Your task to perform on an android device: Go to wifi settings Image 0: 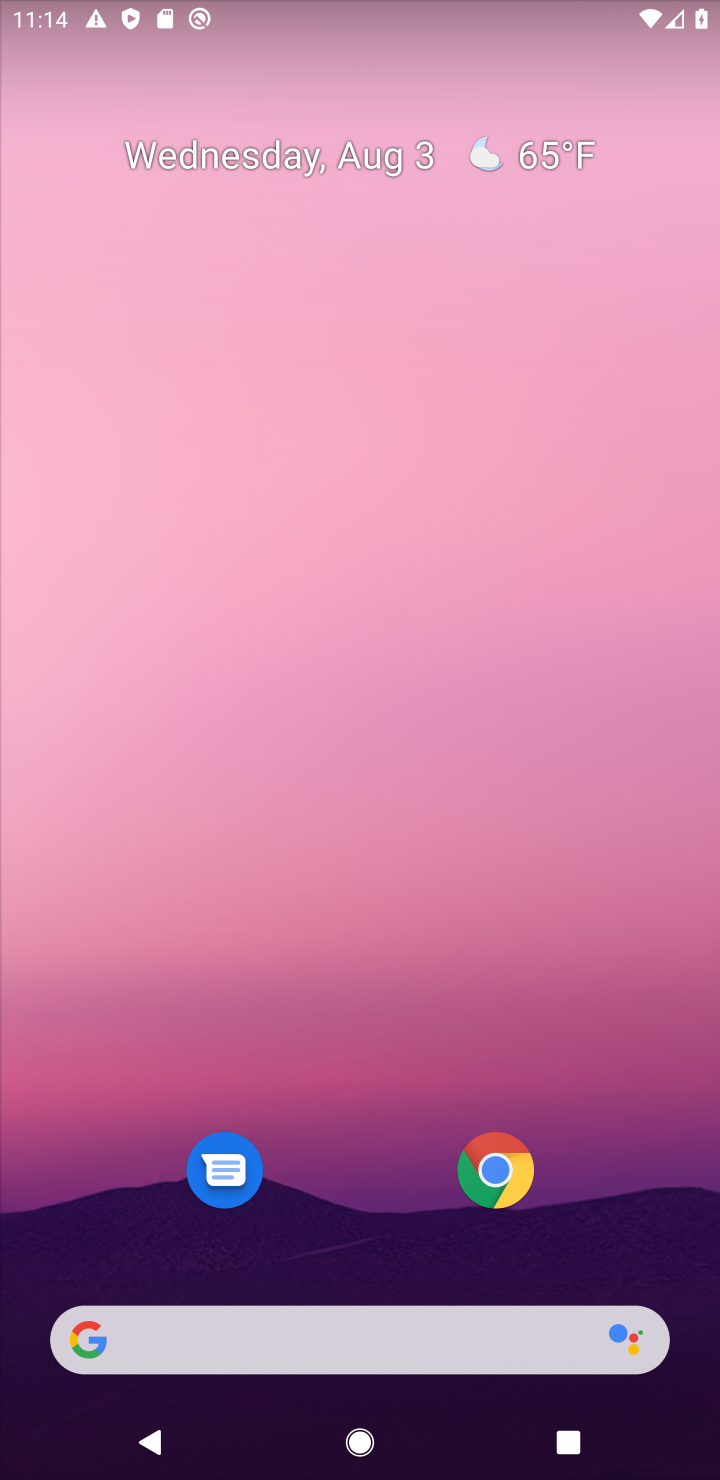
Step 0: drag from (358, 938) to (444, 16)
Your task to perform on an android device: Go to wifi settings Image 1: 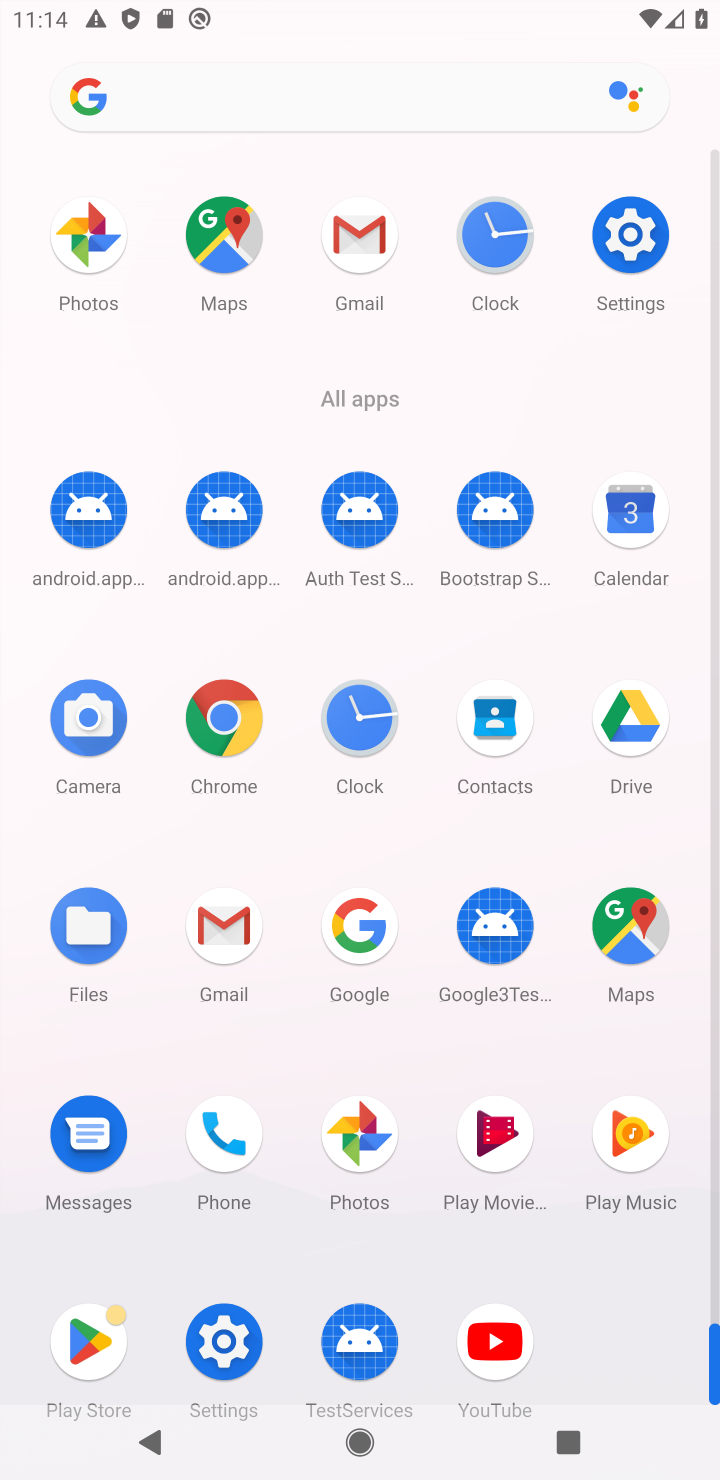
Step 1: click (618, 224)
Your task to perform on an android device: Go to wifi settings Image 2: 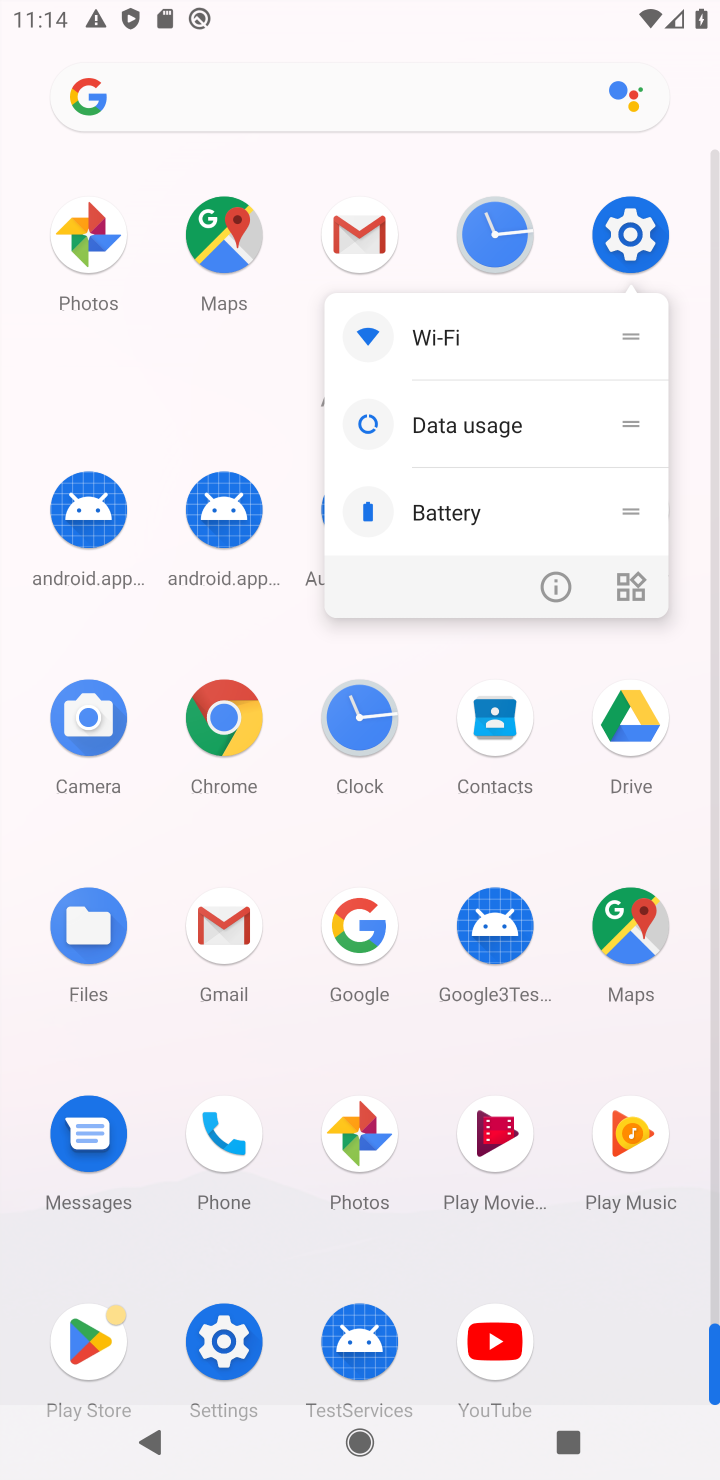
Step 2: click (461, 330)
Your task to perform on an android device: Go to wifi settings Image 3: 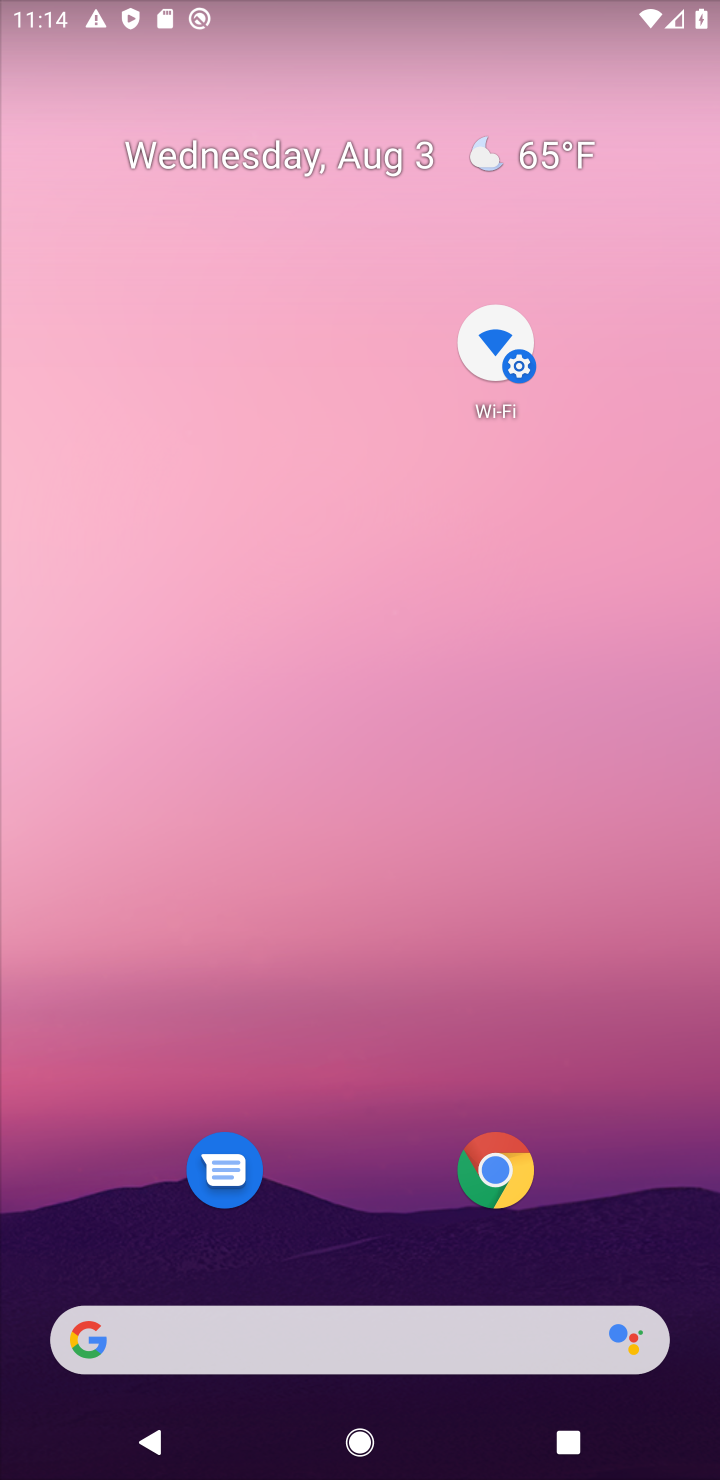
Step 3: click (498, 340)
Your task to perform on an android device: Go to wifi settings Image 4: 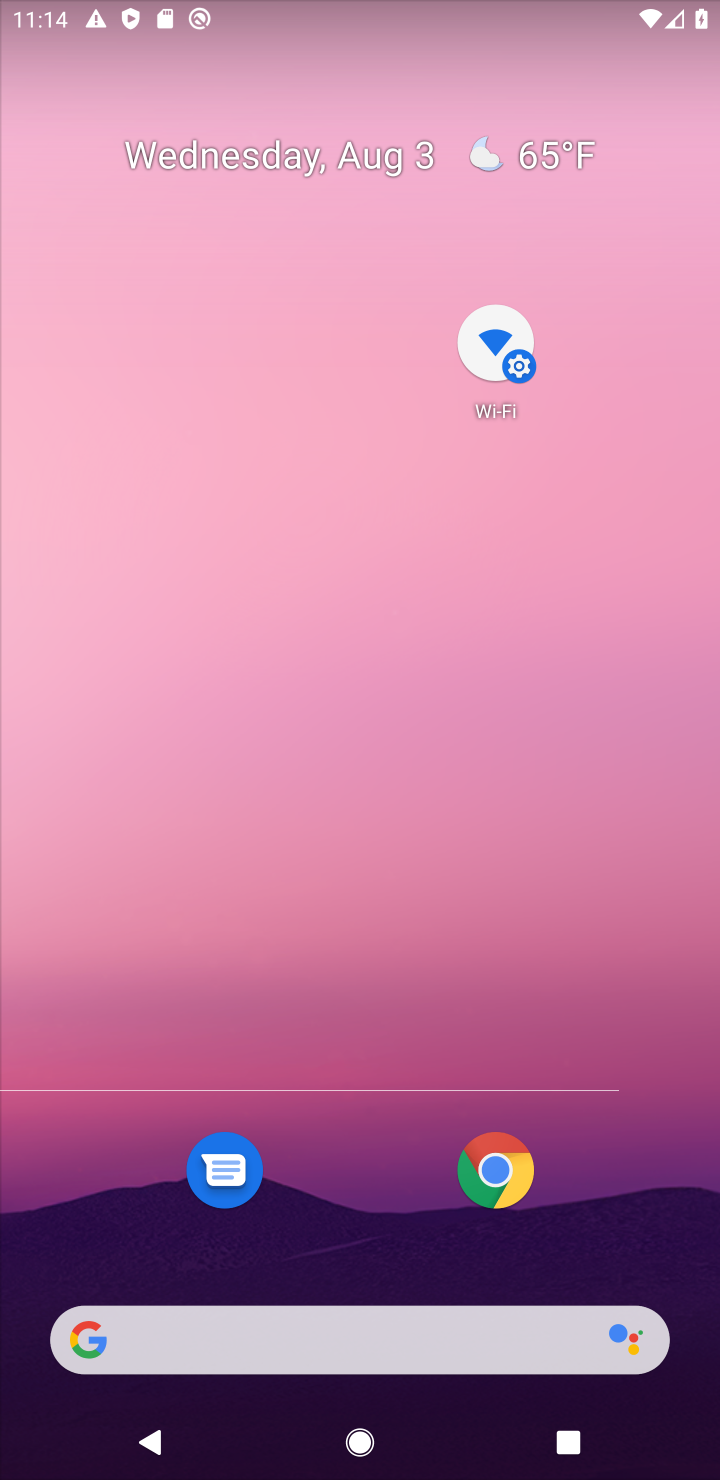
Step 4: click (494, 337)
Your task to perform on an android device: Go to wifi settings Image 5: 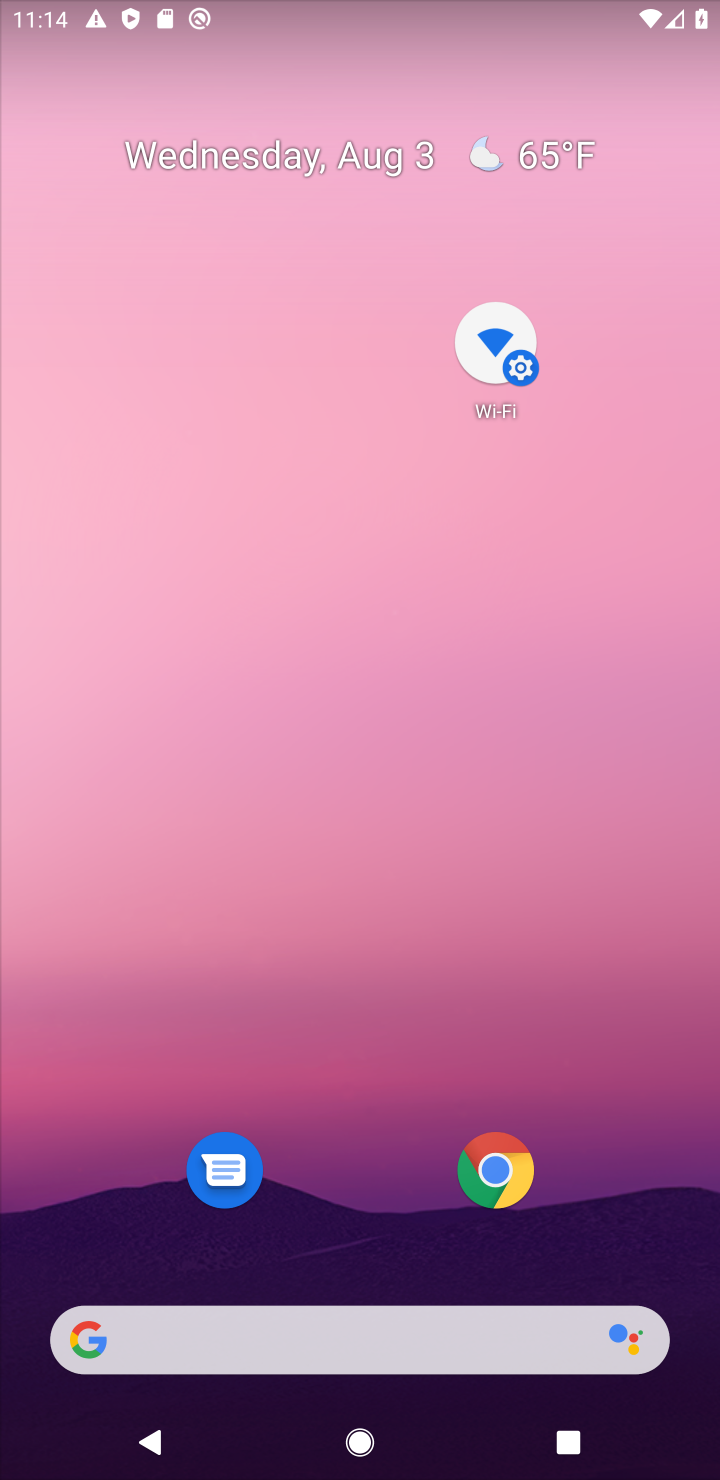
Step 5: drag from (361, 1243) to (485, 73)
Your task to perform on an android device: Go to wifi settings Image 6: 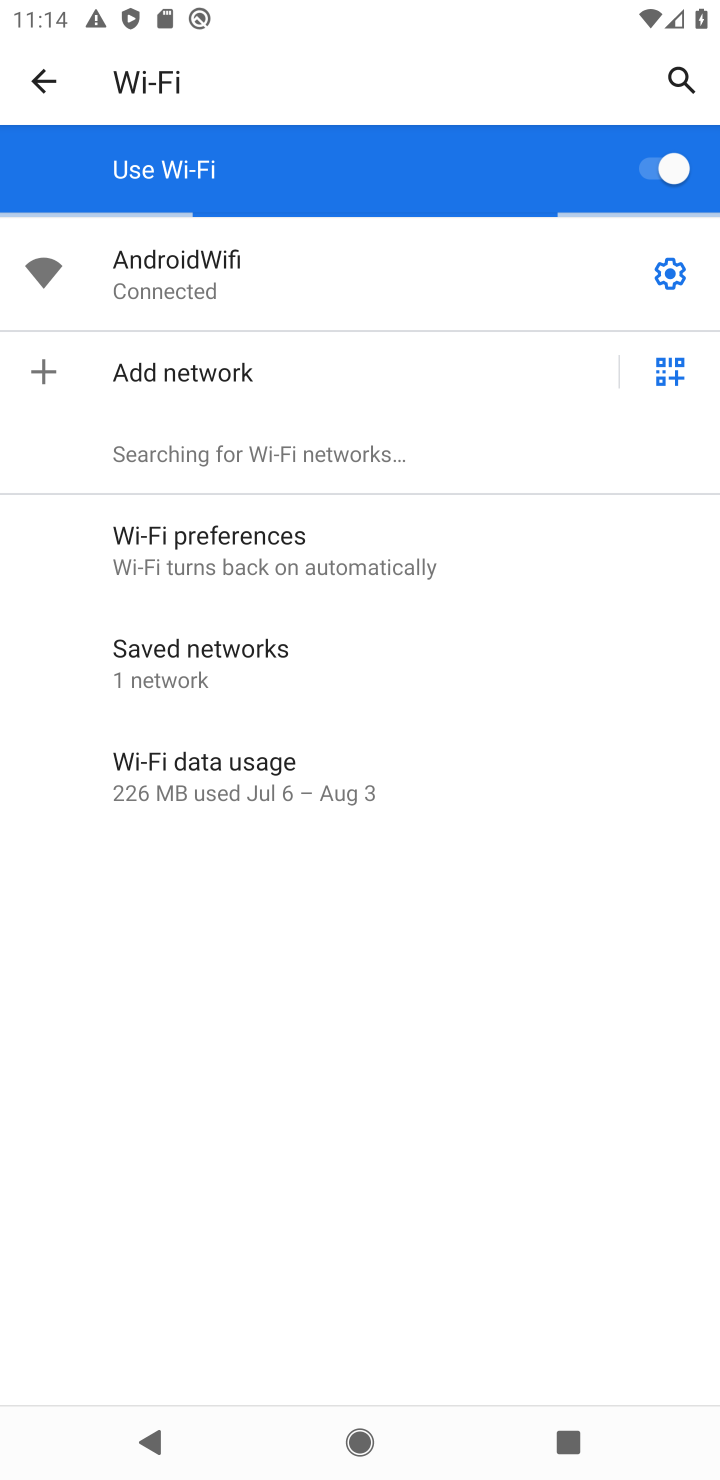
Step 6: click (675, 268)
Your task to perform on an android device: Go to wifi settings Image 7: 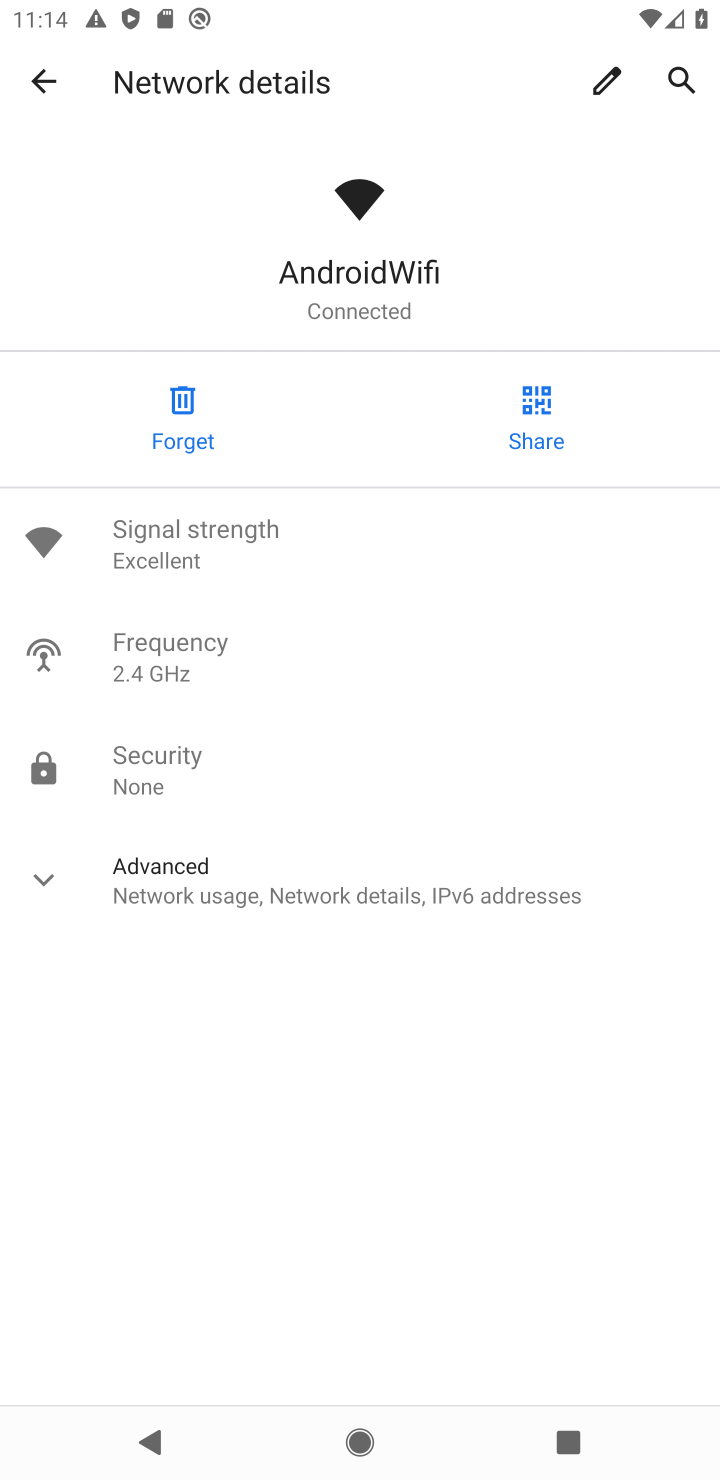
Step 7: task complete